Your task to perform on an android device: toggle wifi Image 0: 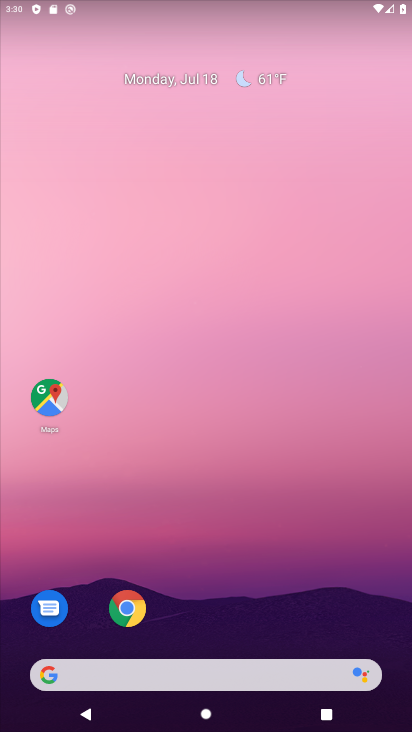
Step 0: drag from (296, 617) to (156, 44)
Your task to perform on an android device: toggle wifi Image 1: 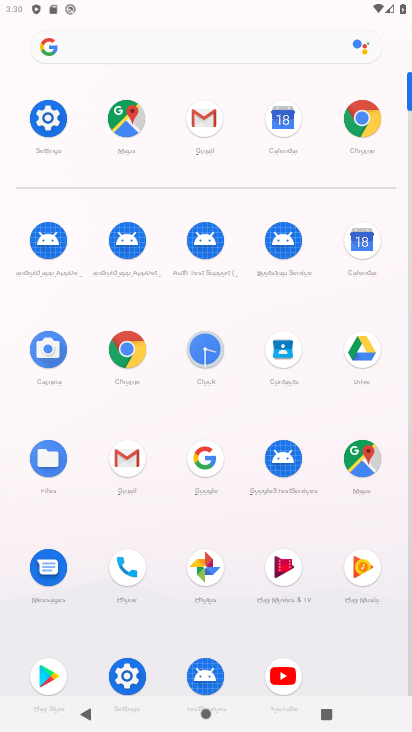
Step 1: click (41, 115)
Your task to perform on an android device: toggle wifi Image 2: 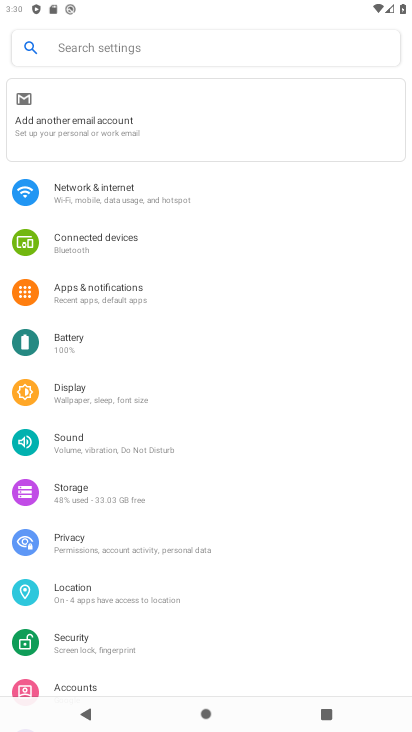
Step 2: click (121, 188)
Your task to perform on an android device: toggle wifi Image 3: 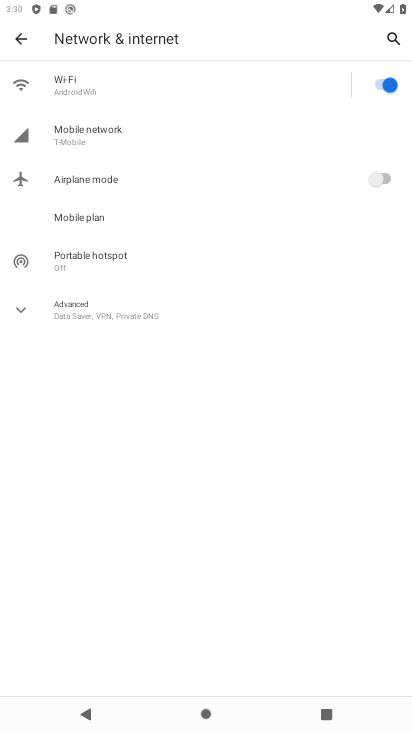
Step 3: click (385, 81)
Your task to perform on an android device: toggle wifi Image 4: 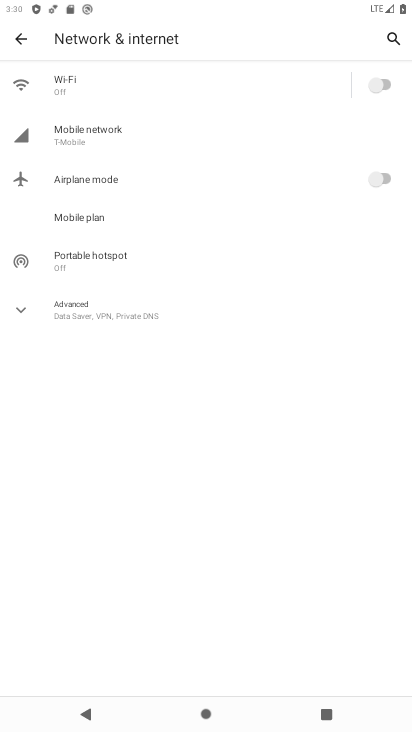
Step 4: task complete